Your task to perform on an android device: What's the latest news in space science? Image 0: 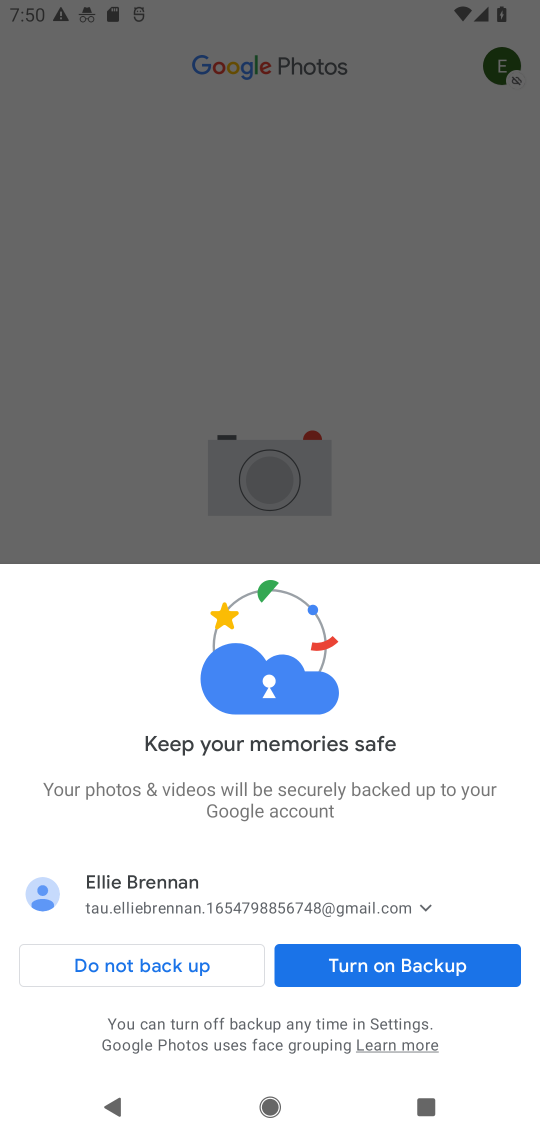
Step 0: press home button
Your task to perform on an android device: What's the latest news in space science? Image 1: 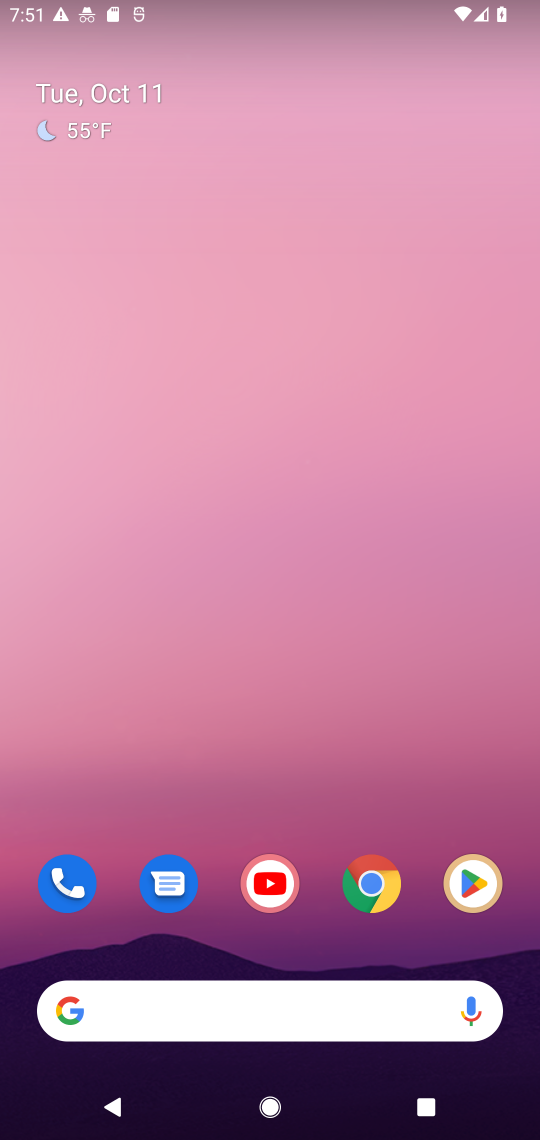
Step 1: drag from (347, 953) to (324, 154)
Your task to perform on an android device: What's the latest news in space science? Image 2: 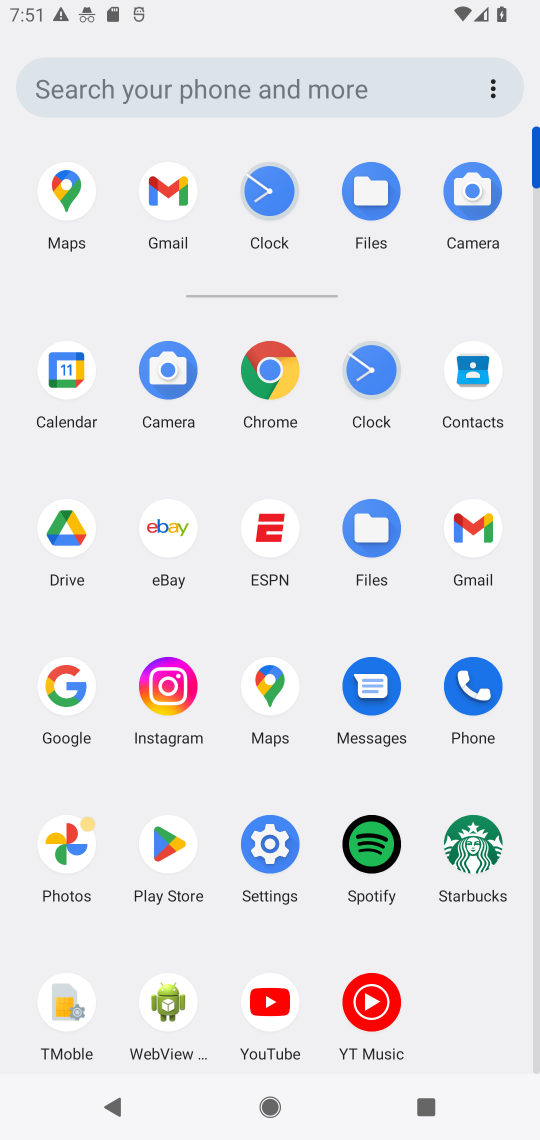
Step 2: click (268, 371)
Your task to perform on an android device: What's the latest news in space science? Image 3: 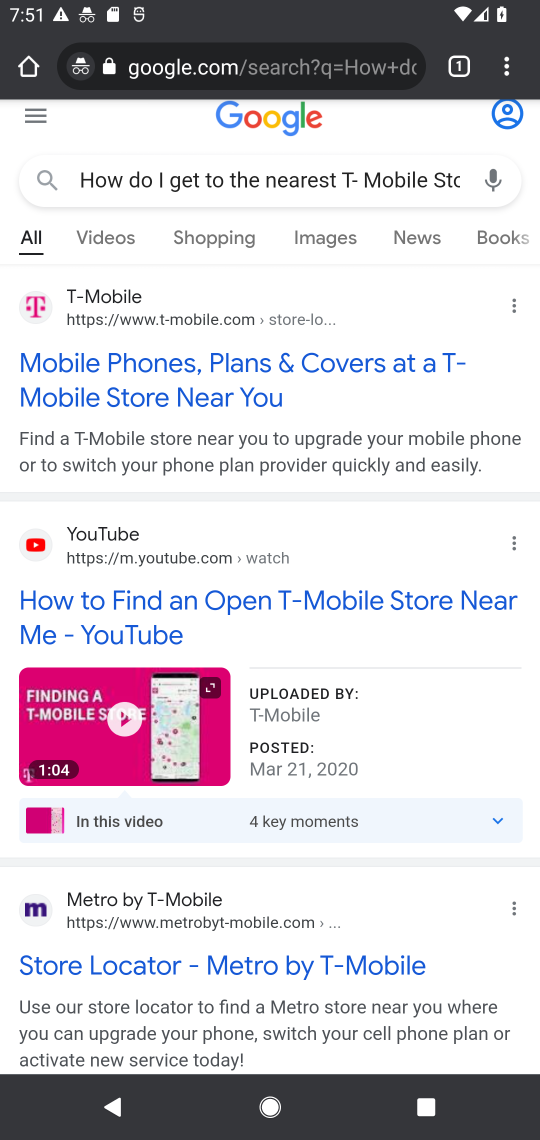
Step 3: click (329, 76)
Your task to perform on an android device: What's the latest news in space science? Image 4: 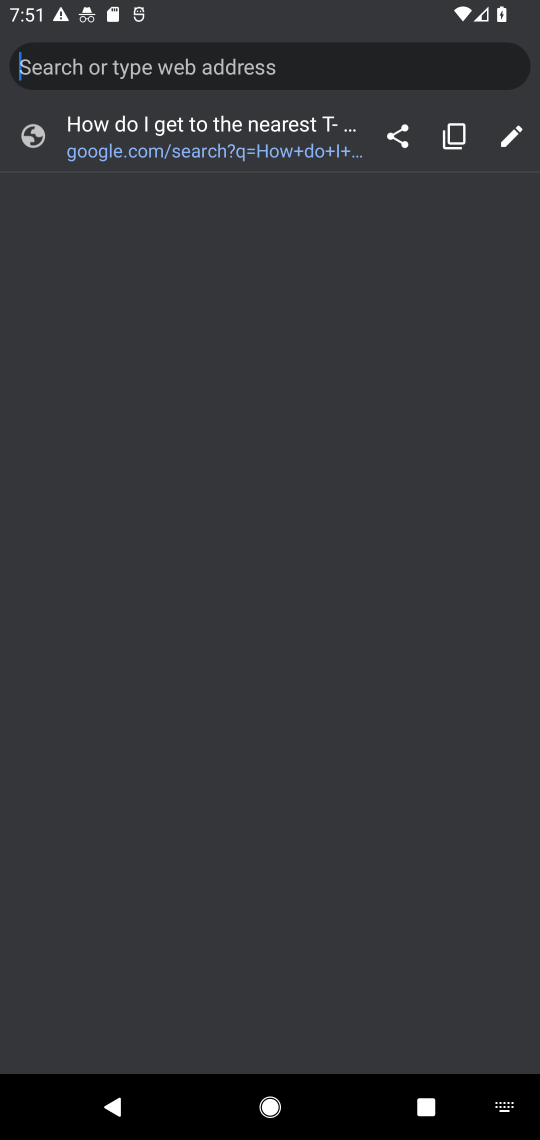
Step 4: type "What's the latest news in space science?"
Your task to perform on an android device: What's the latest news in space science? Image 5: 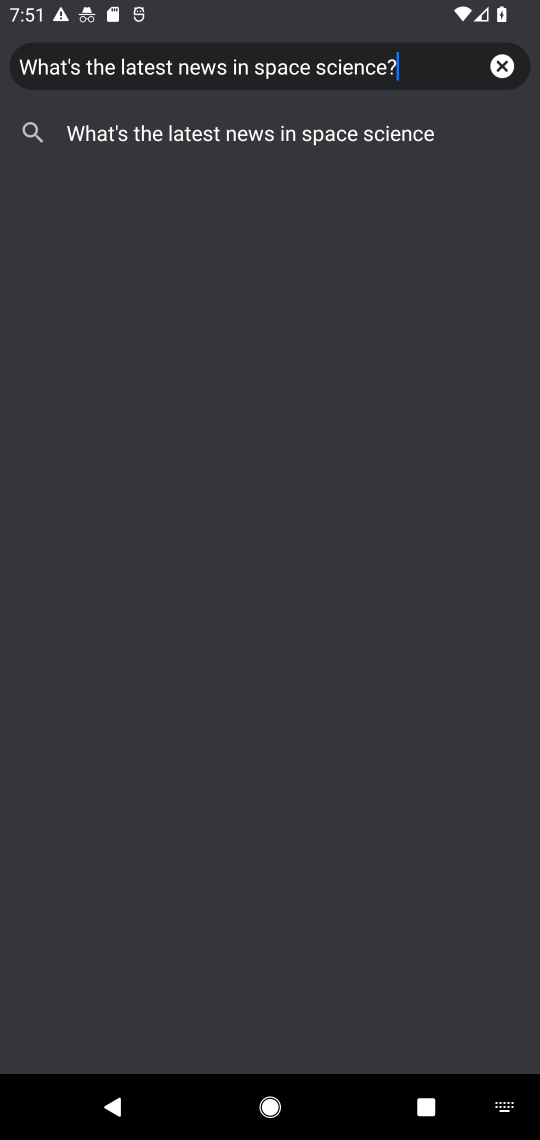
Step 5: press enter
Your task to perform on an android device: What's the latest news in space science? Image 6: 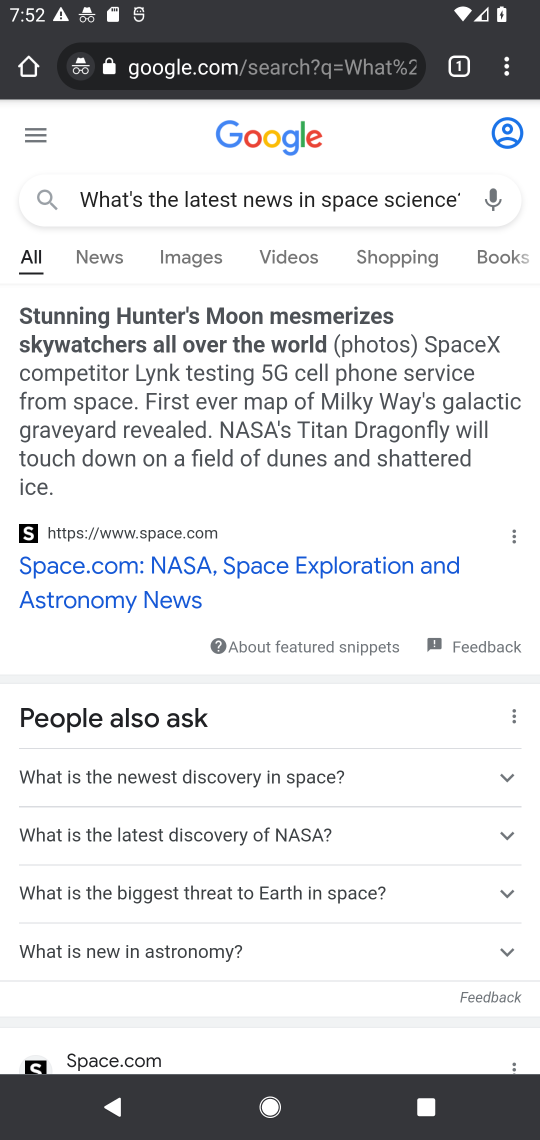
Step 6: task complete